Your task to perform on an android device: choose inbox layout in the gmail app Image 0: 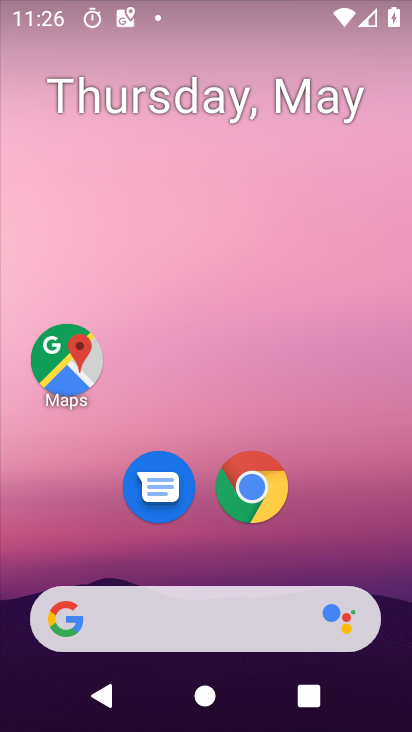
Step 0: drag from (346, 503) to (373, 147)
Your task to perform on an android device: choose inbox layout in the gmail app Image 1: 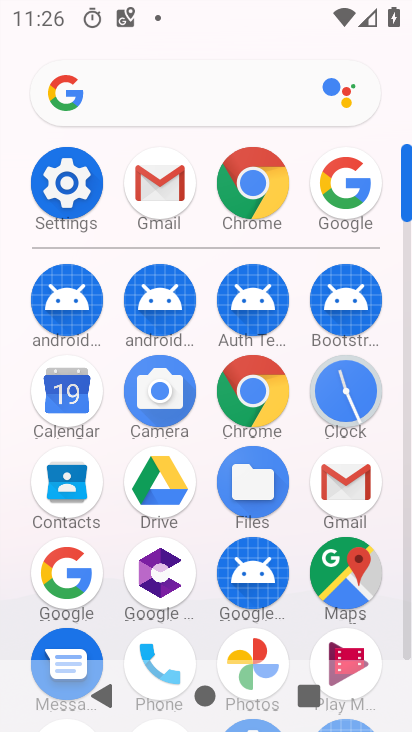
Step 1: click (154, 191)
Your task to perform on an android device: choose inbox layout in the gmail app Image 2: 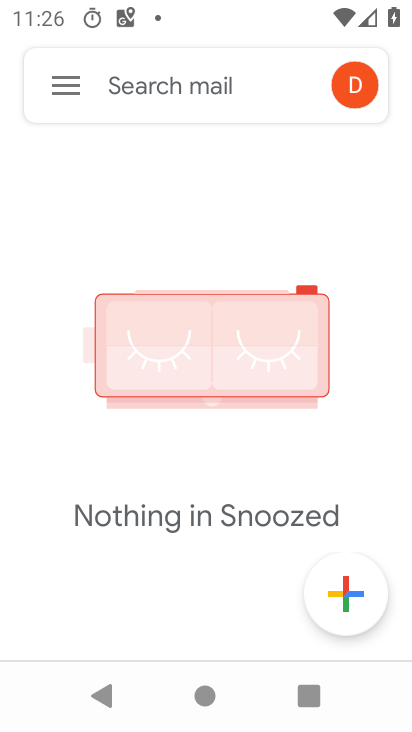
Step 2: click (60, 99)
Your task to perform on an android device: choose inbox layout in the gmail app Image 3: 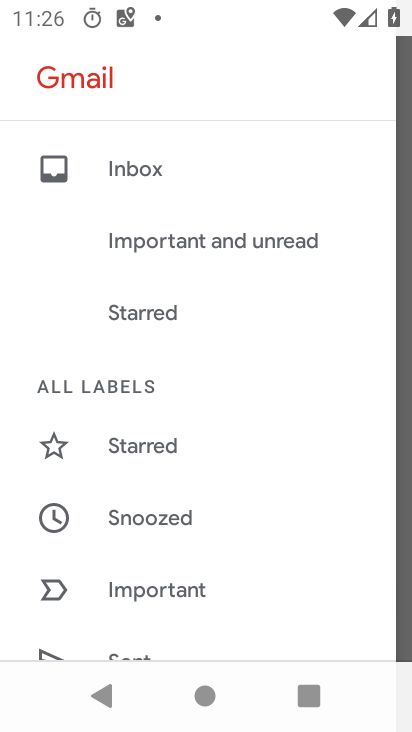
Step 3: drag from (250, 569) to (282, 229)
Your task to perform on an android device: choose inbox layout in the gmail app Image 4: 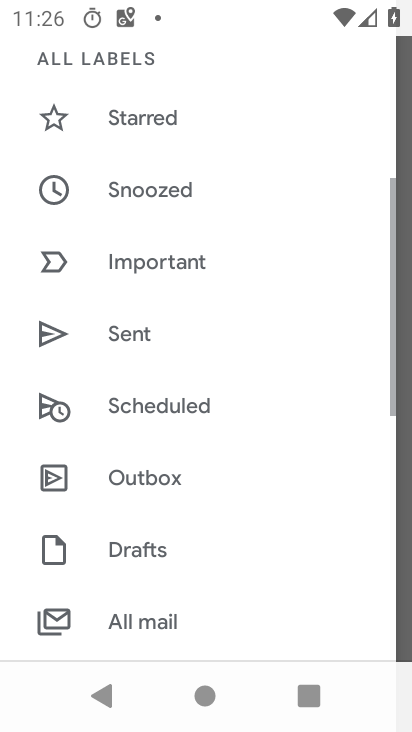
Step 4: drag from (251, 607) to (296, 262)
Your task to perform on an android device: choose inbox layout in the gmail app Image 5: 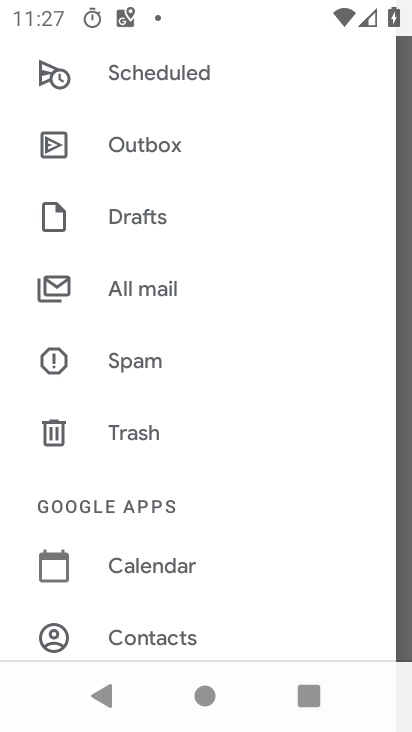
Step 5: drag from (253, 594) to (279, 304)
Your task to perform on an android device: choose inbox layout in the gmail app Image 6: 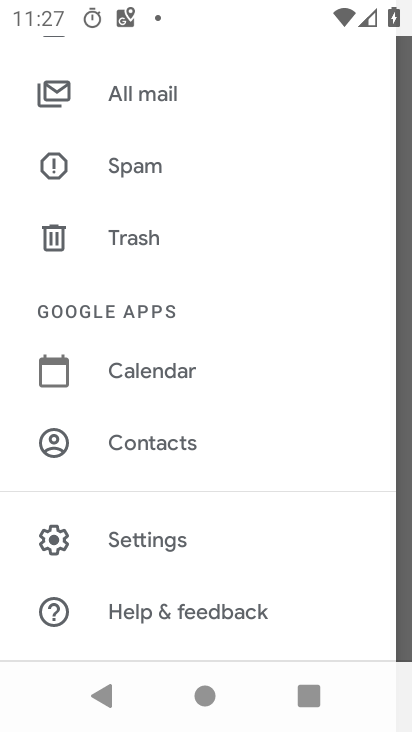
Step 6: click (178, 536)
Your task to perform on an android device: choose inbox layout in the gmail app Image 7: 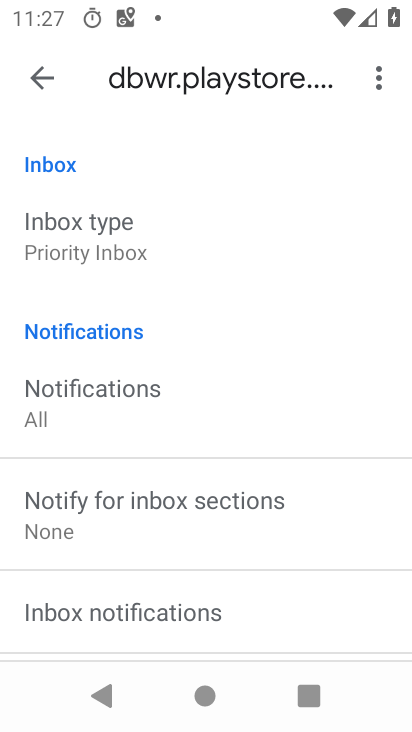
Step 7: click (109, 248)
Your task to perform on an android device: choose inbox layout in the gmail app Image 8: 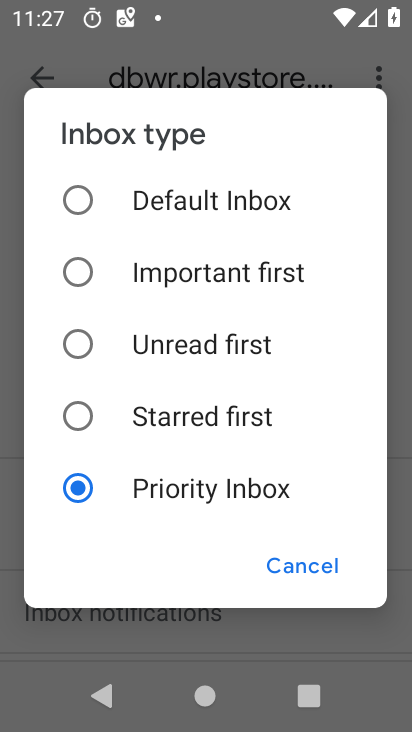
Step 8: click (86, 197)
Your task to perform on an android device: choose inbox layout in the gmail app Image 9: 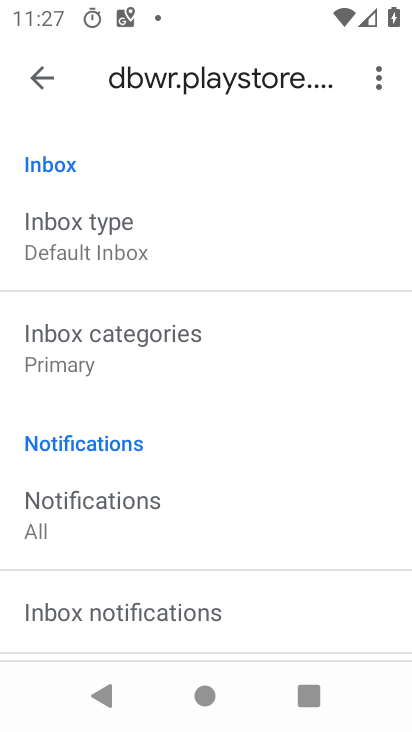
Step 9: task complete